Your task to perform on an android device: find photos in the google photos app Image 0: 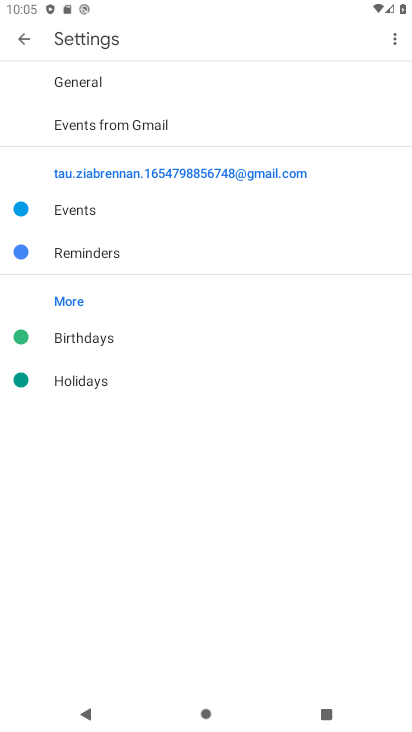
Step 0: press home button
Your task to perform on an android device: find photos in the google photos app Image 1: 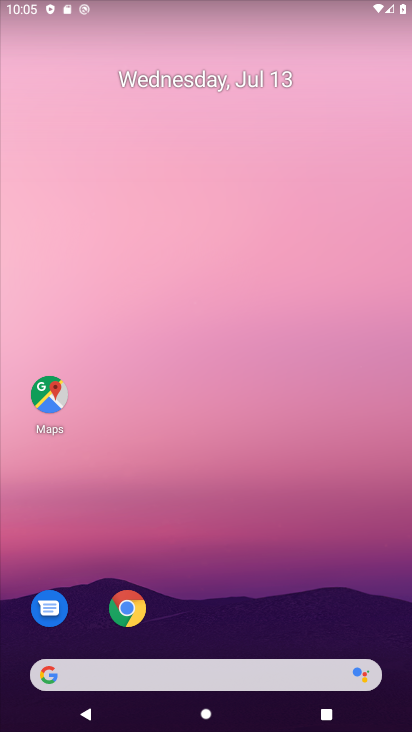
Step 1: drag from (296, 577) to (234, 79)
Your task to perform on an android device: find photos in the google photos app Image 2: 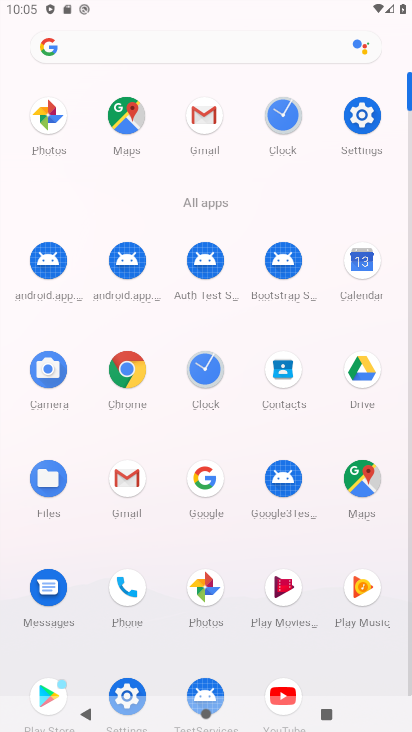
Step 2: click (202, 586)
Your task to perform on an android device: find photos in the google photos app Image 3: 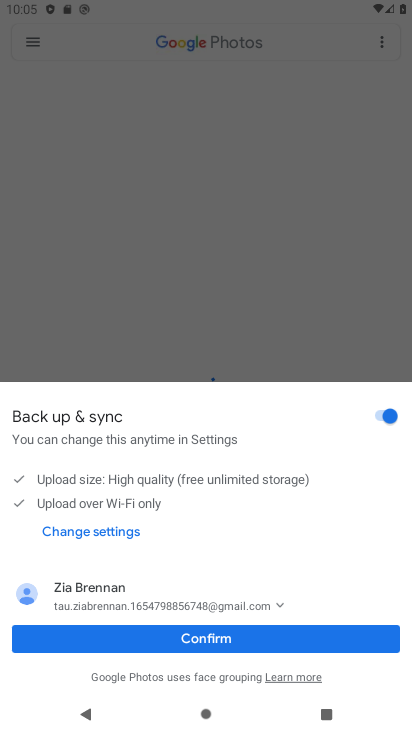
Step 3: click (270, 637)
Your task to perform on an android device: find photos in the google photos app Image 4: 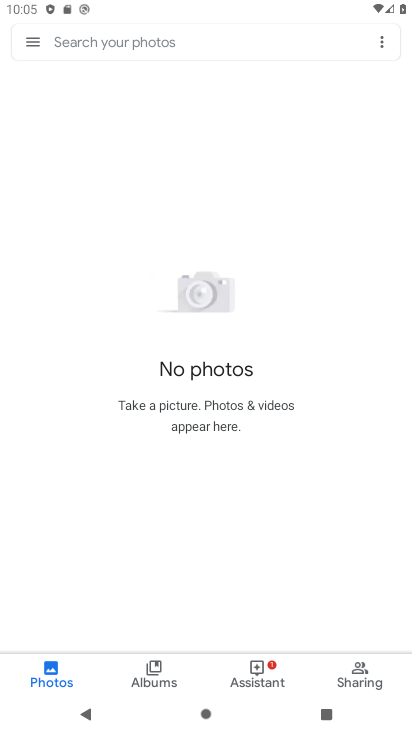
Step 4: task complete